Your task to perform on an android device: Open Youtube and go to the subscriptions tab Image 0: 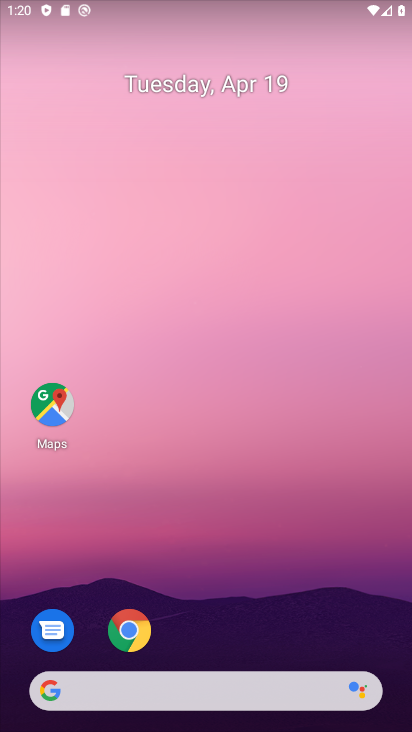
Step 0: drag from (253, 600) to (270, 122)
Your task to perform on an android device: Open Youtube and go to the subscriptions tab Image 1: 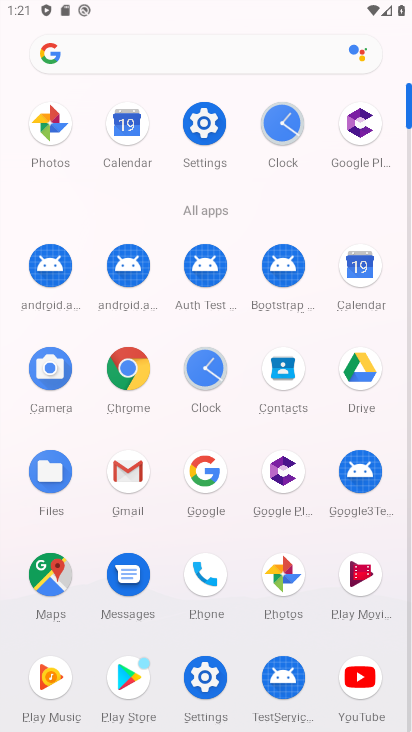
Step 1: click (365, 672)
Your task to perform on an android device: Open Youtube and go to the subscriptions tab Image 2: 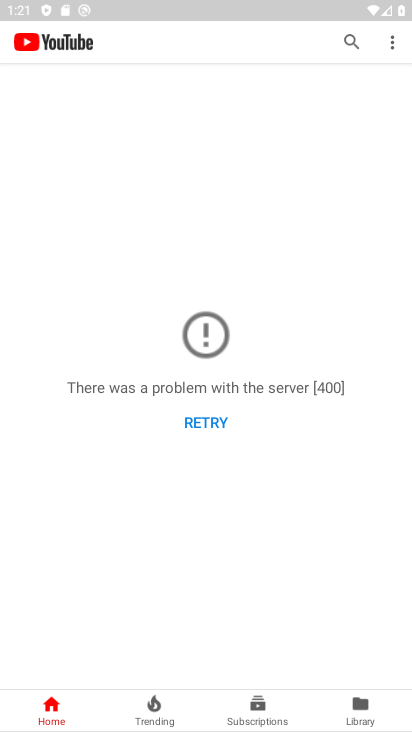
Step 2: click (207, 421)
Your task to perform on an android device: Open Youtube and go to the subscriptions tab Image 3: 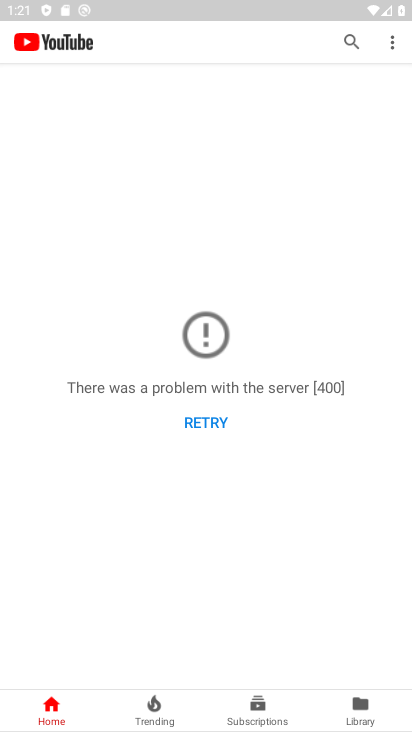
Step 3: click (207, 422)
Your task to perform on an android device: Open Youtube and go to the subscriptions tab Image 4: 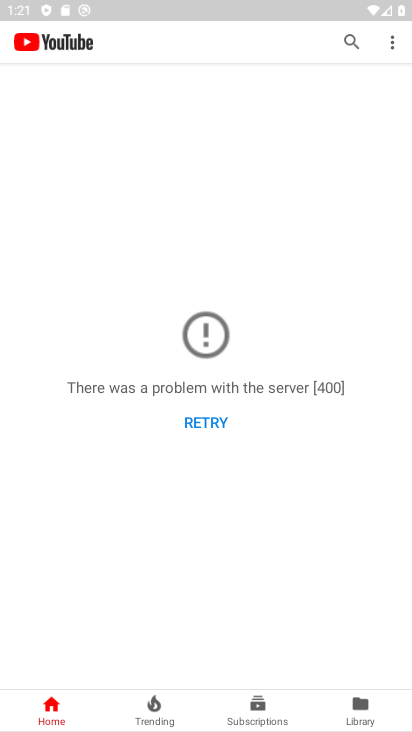
Step 4: click (261, 703)
Your task to perform on an android device: Open Youtube and go to the subscriptions tab Image 5: 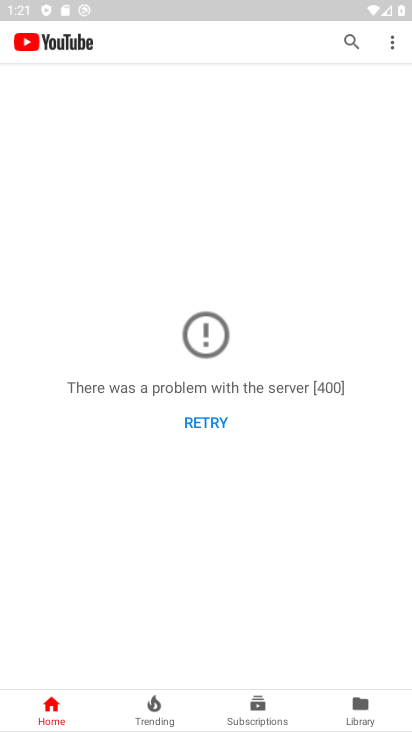
Step 5: click (209, 424)
Your task to perform on an android device: Open Youtube and go to the subscriptions tab Image 6: 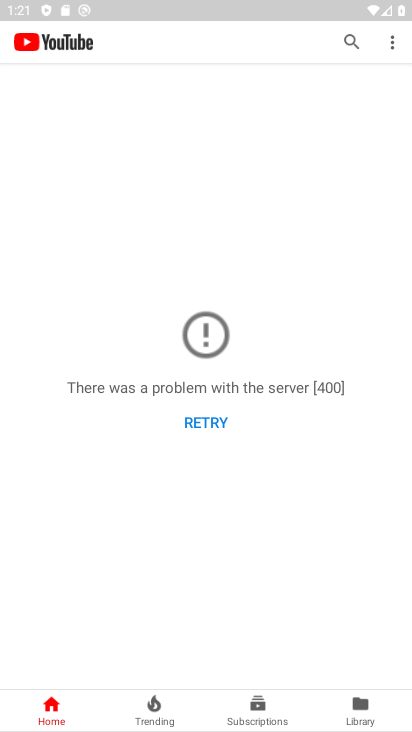
Step 6: click (212, 420)
Your task to perform on an android device: Open Youtube and go to the subscriptions tab Image 7: 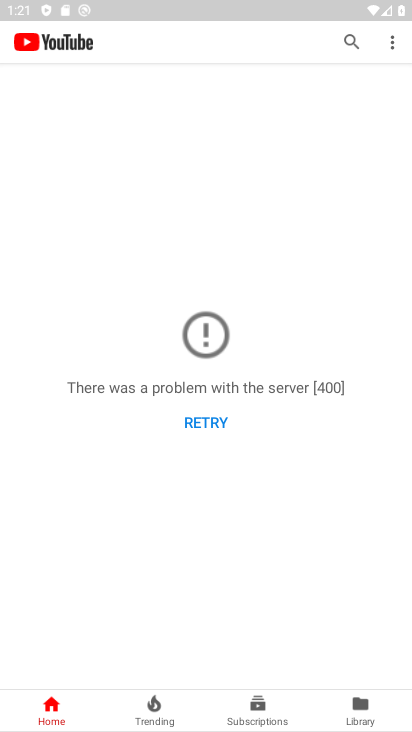
Step 7: click (269, 699)
Your task to perform on an android device: Open Youtube and go to the subscriptions tab Image 8: 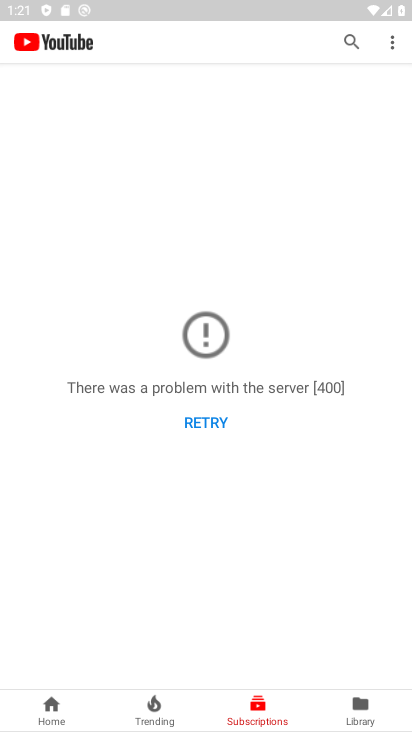
Step 8: task complete